Your task to perform on an android device: turn on notifications settings in the gmail app Image 0: 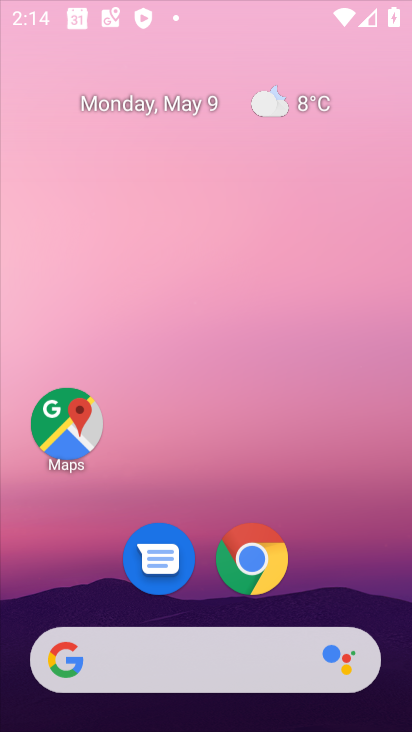
Step 0: click (321, 571)
Your task to perform on an android device: turn on notifications settings in the gmail app Image 1: 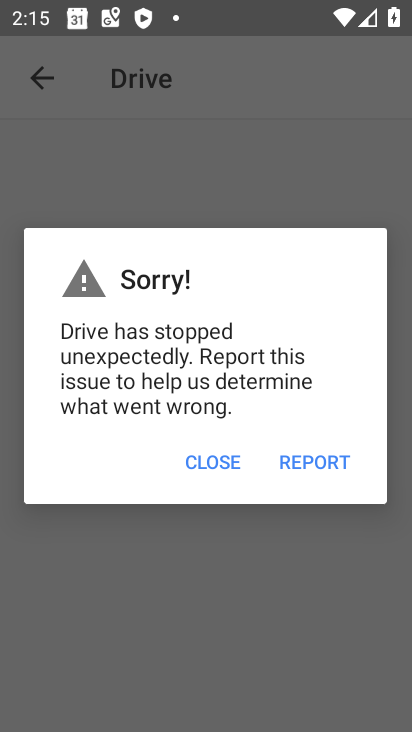
Step 1: click (212, 458)
Your task to perform on an android device: turn on notifications settings in the gmail app Image 2: 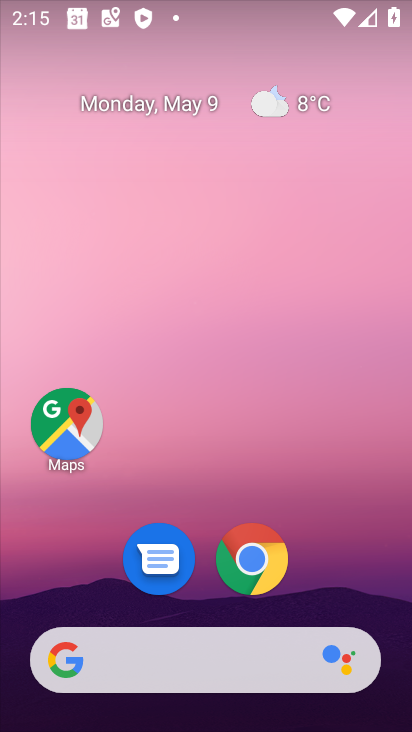
Step 2: drag from (347, 553) to (198, 54)
Your task to perform on an android device: turn on notifications settings in the gmail app Image 3: 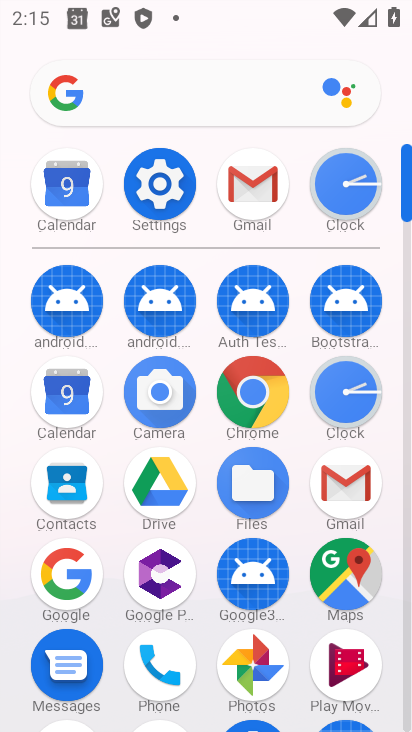
Step 3: click (251, 185)
Your task to perform on an android device: turn on notifications settings in the gmail app Image 4: 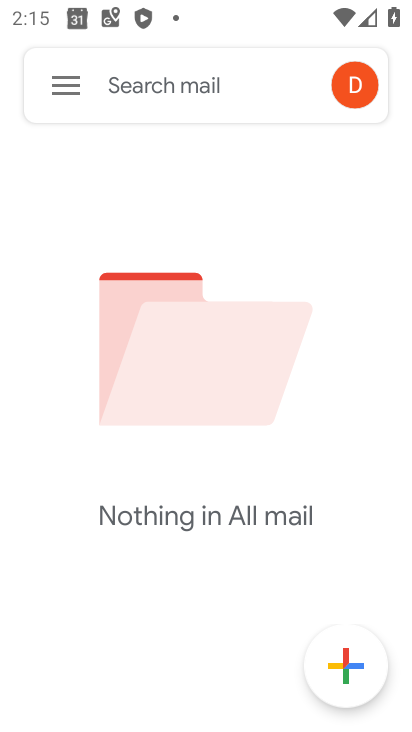
Step 4: click (58, 84)
Your task to perform on an android device: turn on notifications settings in the gmail app Image 5: 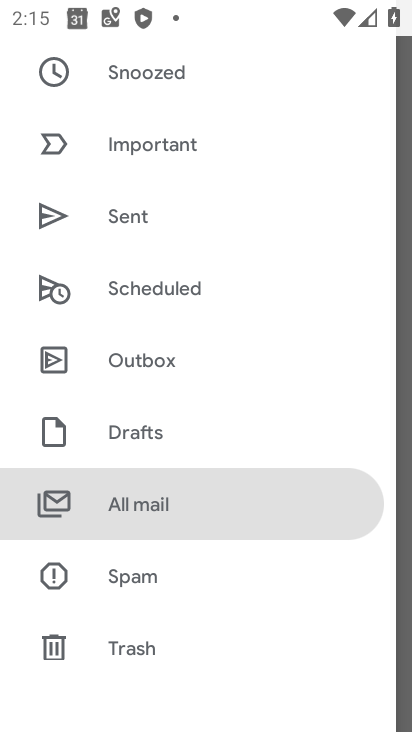
Step 5: drag from (182, 590) to (162, 204)
Your task to perform on an android device: turn on notifications settings in the gmail app Image 6: 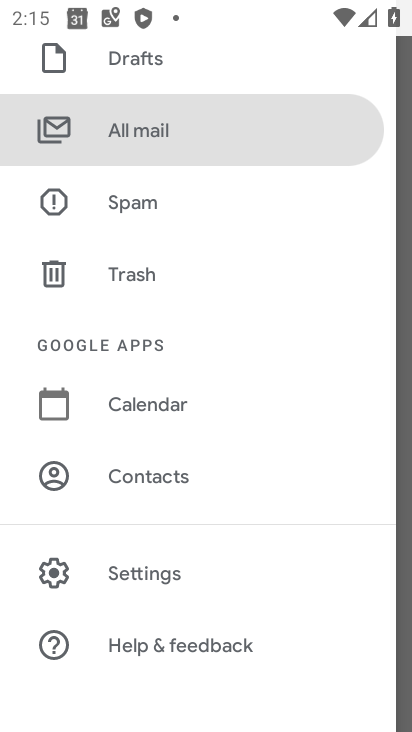
Step 6: click (150, 572)
Your task to perform on an android device: turn on notifications settings in the gmail app Image 7: 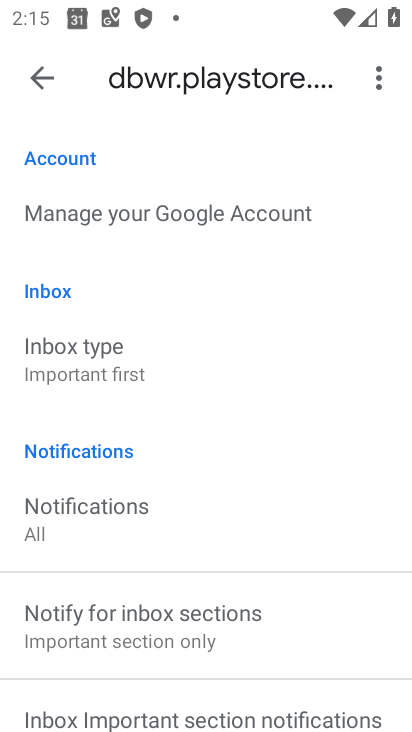
Step 7: click (35, 76)
Your task to perform on an android device: turn on notifications settings in the gmail app Image 8: 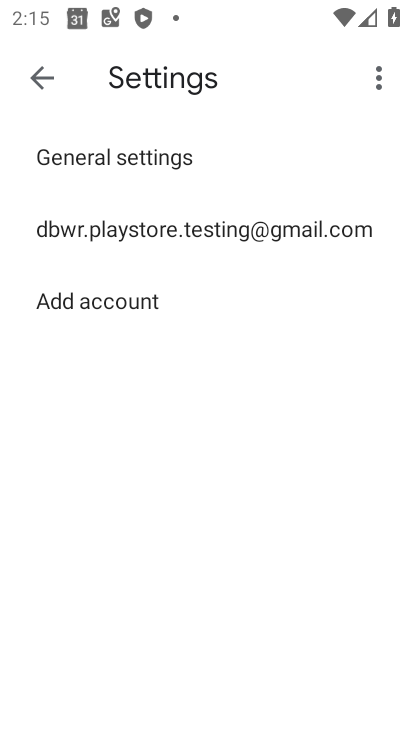
Step 8: click (75, 160)
Your task to perform on an android device: turn on notifications settings in the gmail app Image 9: 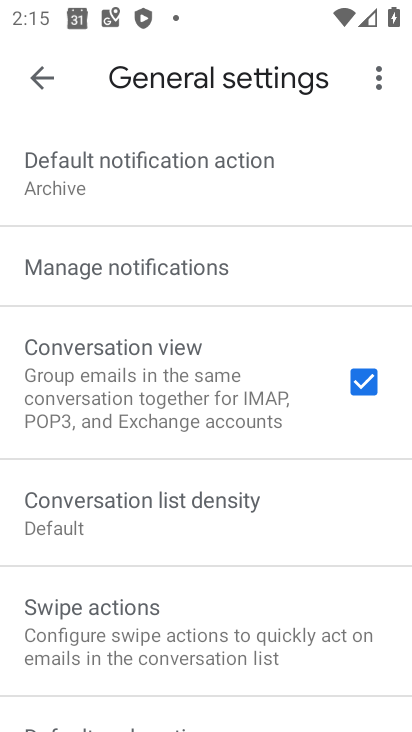
Step 9: click (110, 257)
Your task to perform on an android device: turn on notifications settings in the gmail app Image 10: 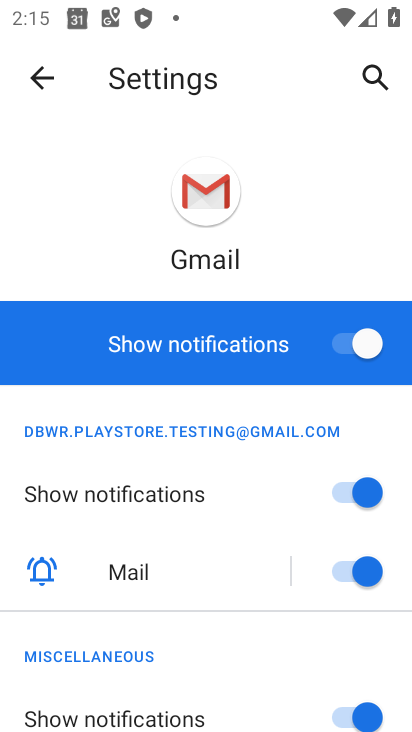
Step 10: task complete